Your task to perform on an android device: Open eBay Image 0: 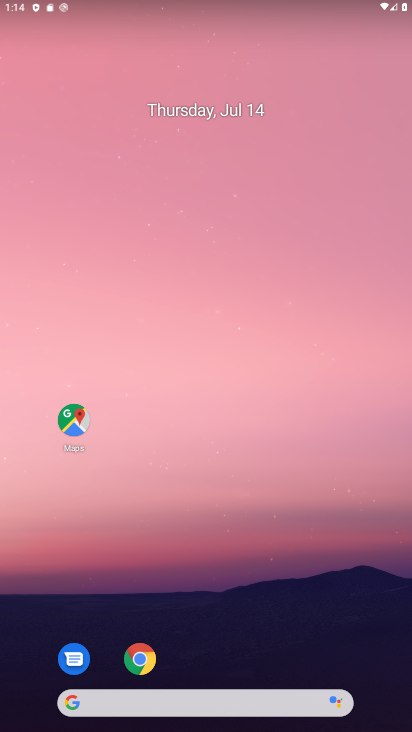
Step 0: click (131, 656)
Your task to perform on an android device: Open eBay Image 1: 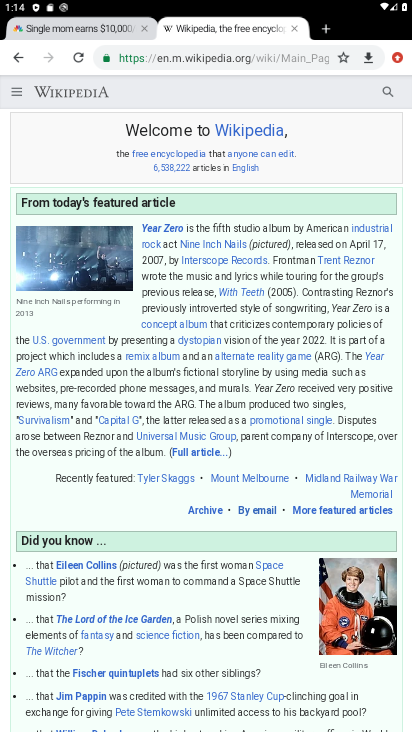
Step 1: click (329, 29)
Your task to perform on an android device: Open eBay Image 2: 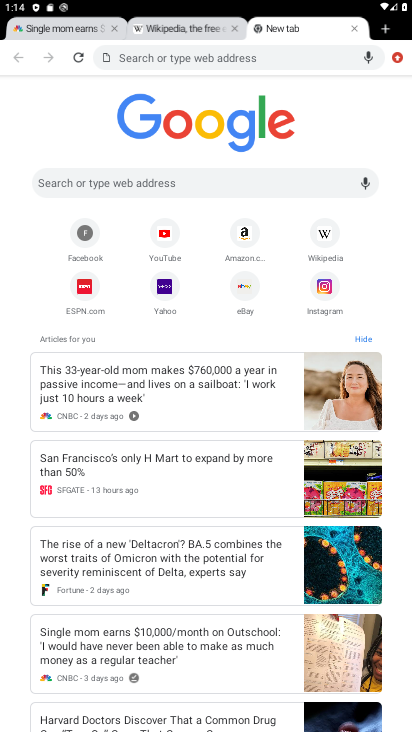
Step 2: click (251, 288)
Your task to perform on an android device: Open eBay Image 3: 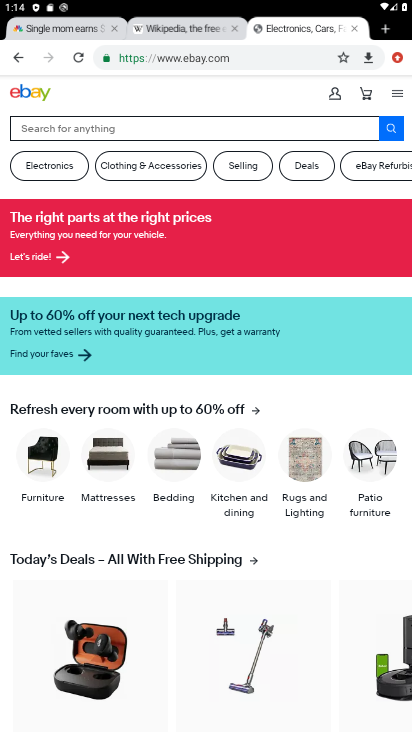
Step 3: task complete